Your task to perform on an android device: turn off location Image 0: 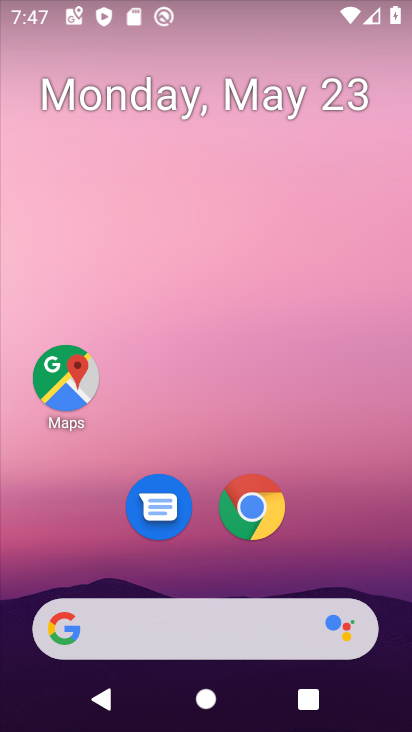
Step 0: drag from (332, 597) to (309, 220)
Your task to perform on an android device: turn off location Image 1: 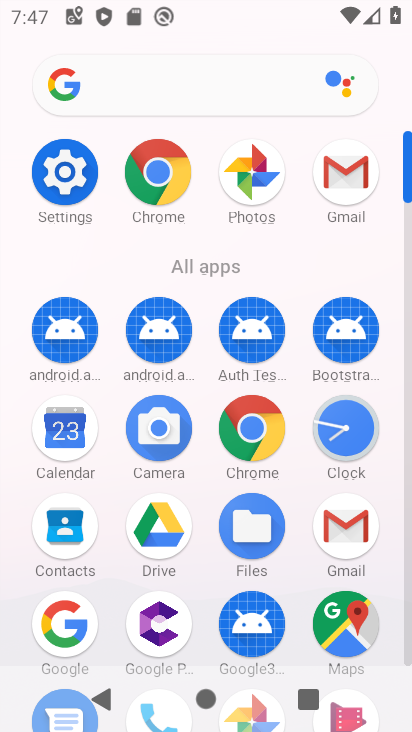
Step 1: click (44, 180)
Your task to perform on an android device: turn off location Image 2: 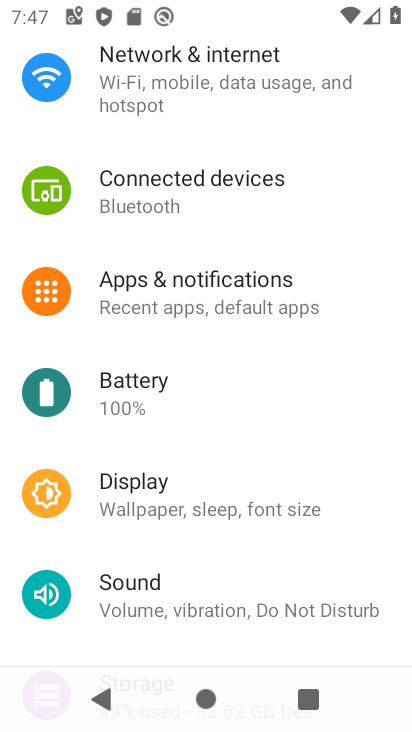
Step 2: drag from (209, 547) to (227, 220)
Your task to perform on an android device: turn off location Image 3: 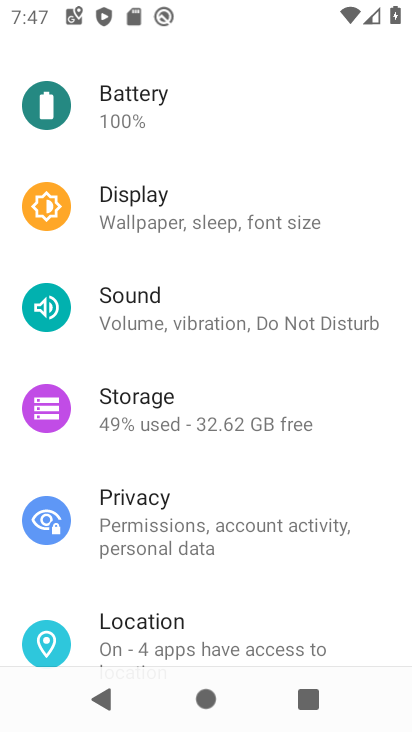
Step 3: click (178, 628)
Your task to perform on an android device: turn off location Image 4: 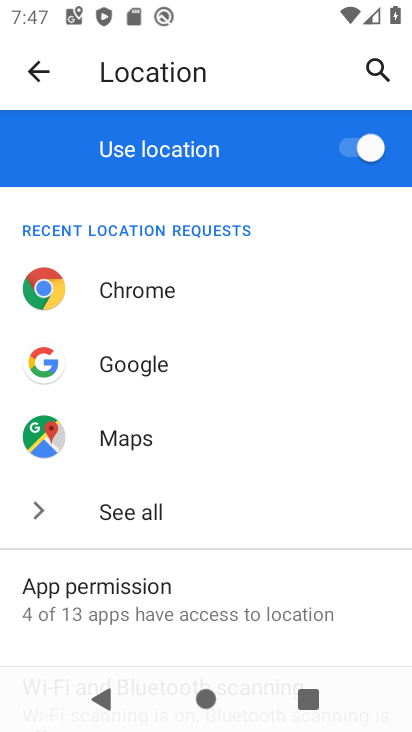
Step 4: click (348, 154)
Your task to perform on an android device: turn off location Image 5: 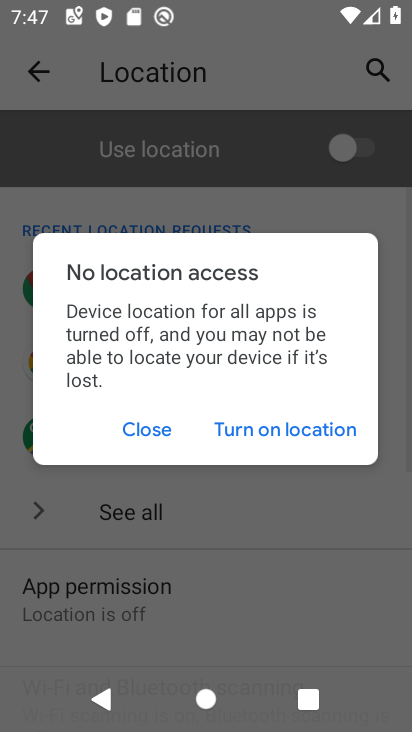
Step 5: task complete